Your task to perform on an android device: When is my next meeting? Image 0: 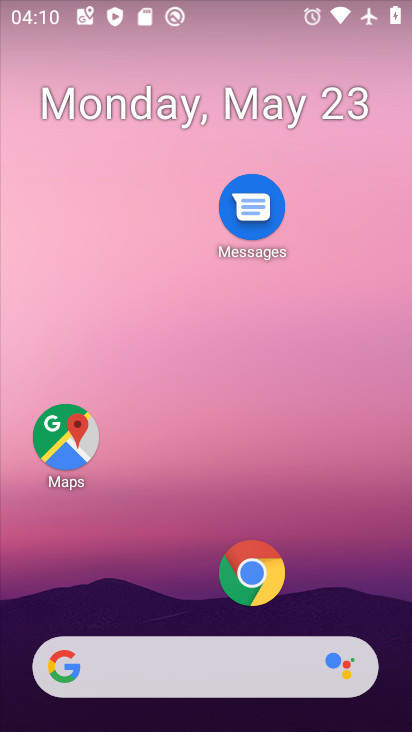
Step 0: drag from (226, 576) to (251, 27)
Your task to perform on an android device: When is my next meeting? Image 1: 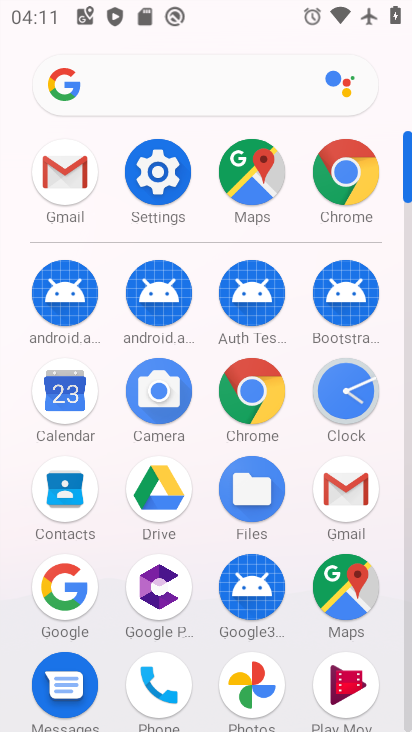
Step 1: click (73, 401)
Your task to perform on an android device: When is my next meeting? Image 2: 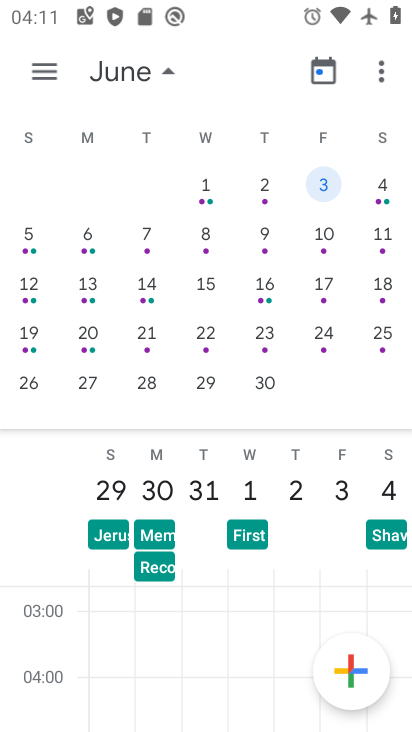
Step 2: drag from (12, 258) to (45, 314)
Your task to perform on an android device: When is my next meeting? Image 3: 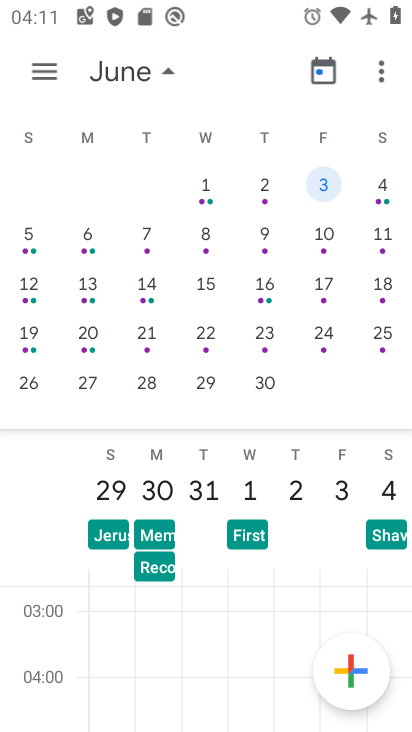
Step 3: drag from (105, 245) to (406, 267)
Your task to perform on an android device: When is my next meeting? Image 4: 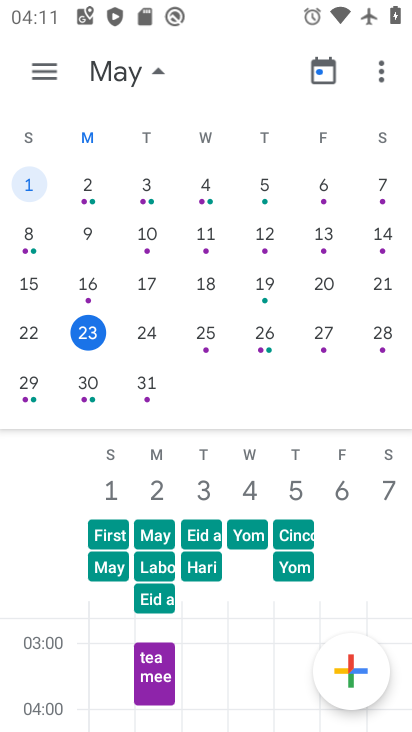
Step 4: click (93, 339)
Your task to perform on an android device: When is my next meeting? Image 5: 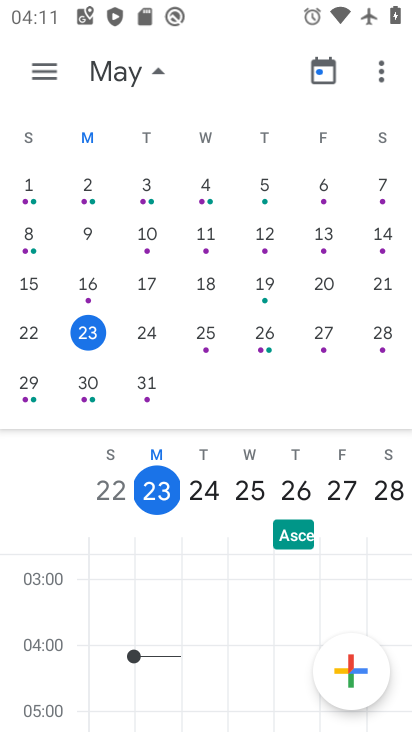
Step 5: task complete